Your task to perform on an android device: Go to wifi settings Image 0: 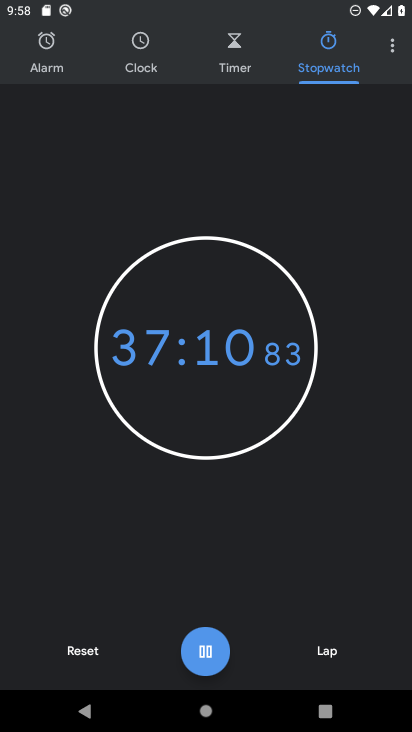
Step 0: click (390, 43)
Your task to perform on an android device: Go to wifi settings Image 1: 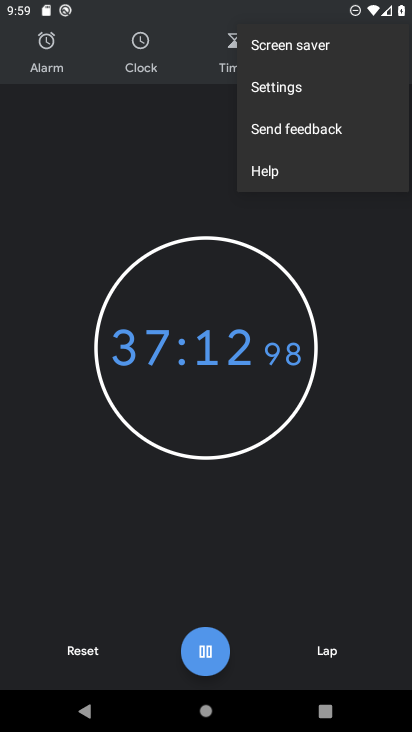
Step 1: click (265, 85)
Your task to perform on an android device: Go to wifi settings Image 2: 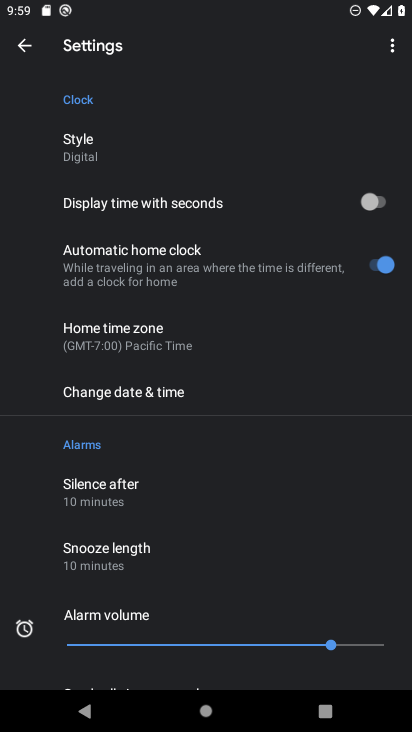
Step 2: drag from (301, 164) to (314, 502)
Your task to perform on an android device: Go to wifi settings Image 3: 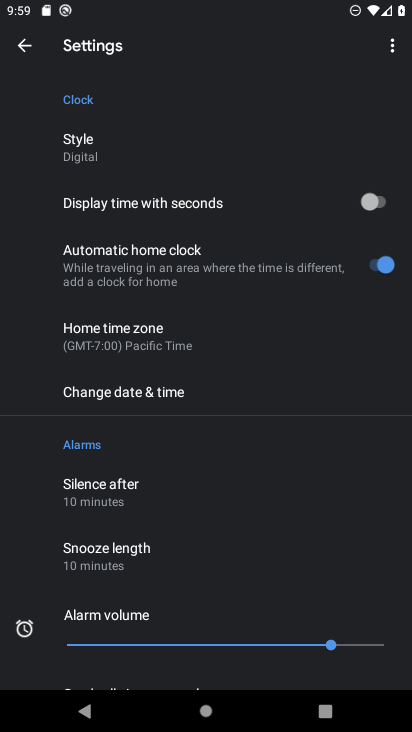
Step 3: press home button
Your task to perform on an android device: Go to wifi settings Image 4: 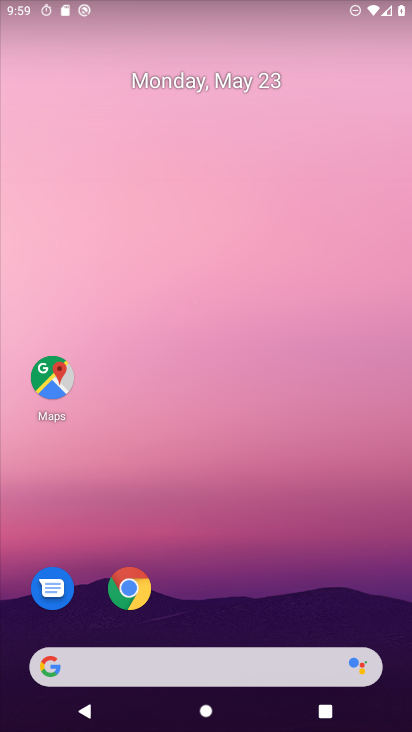
Step 4: drag from (400, 696) to (338, 83)
Your task to perform on an android device: Go to wifi settings Image 5: 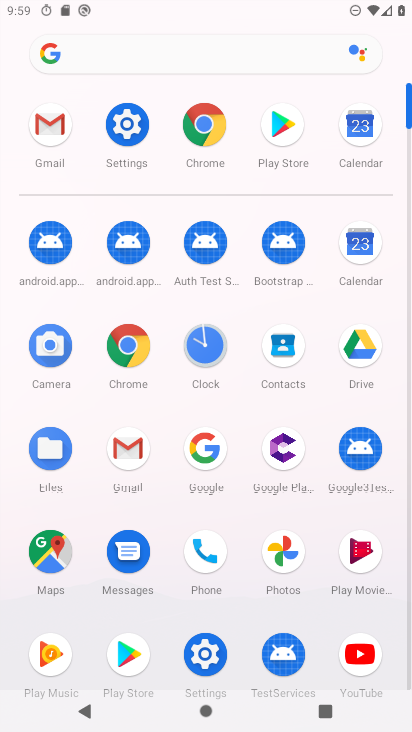
Step 5: click (127, 112)
Your task to perform on an android device: Go to wifi settings Image 6: 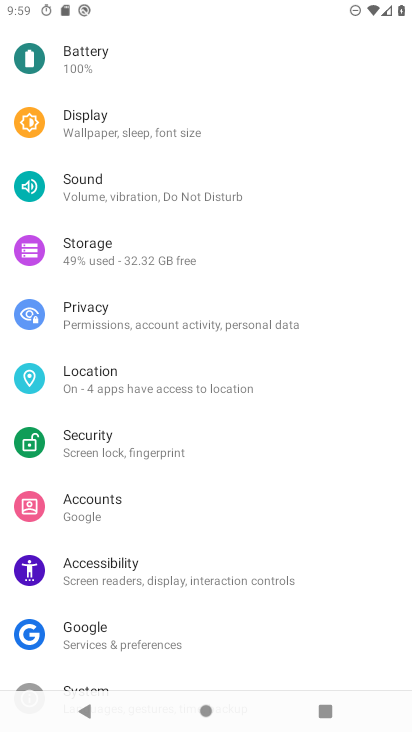
Step 6: drag from (340, 136) to (381, 638)
Your task to perform on an android device: Go to wifi settings Image 7: 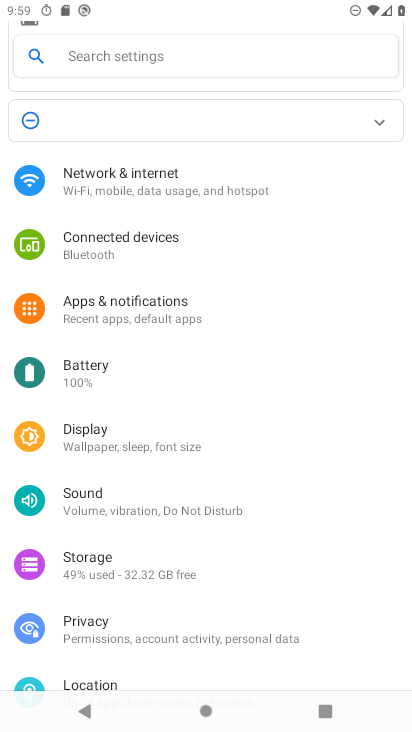
Step 7: click (150, 177)
Your task to perform on an android device: Go to wifi settings Image 8: 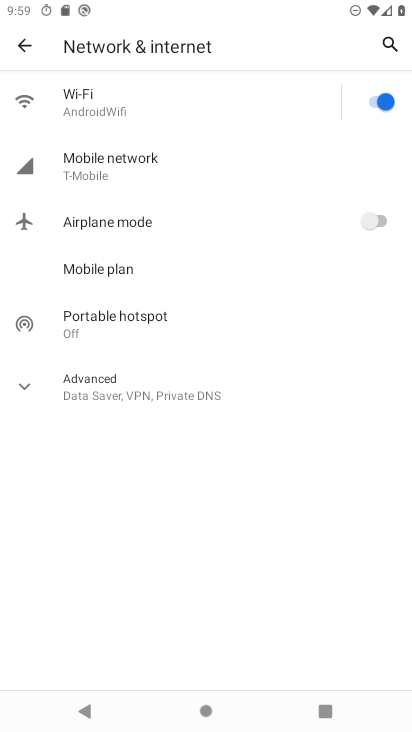
Step 8: click (188, 110)
Your task to perform on an android device: Go to wifi settings Image 9: 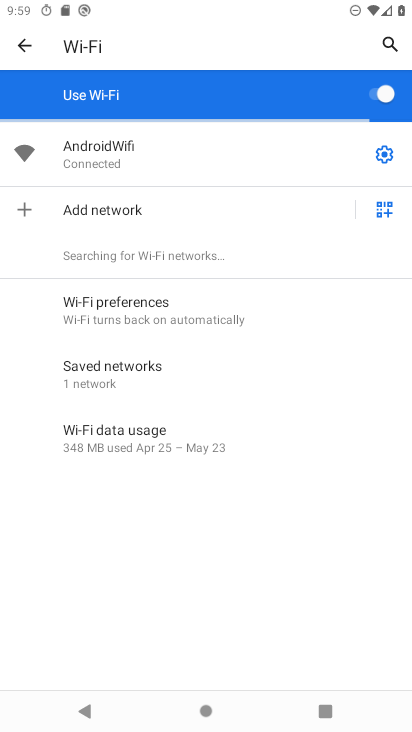
Step 9: click (383, 152)
Your task to perform on an android device: Go to wifi settings Image 10: 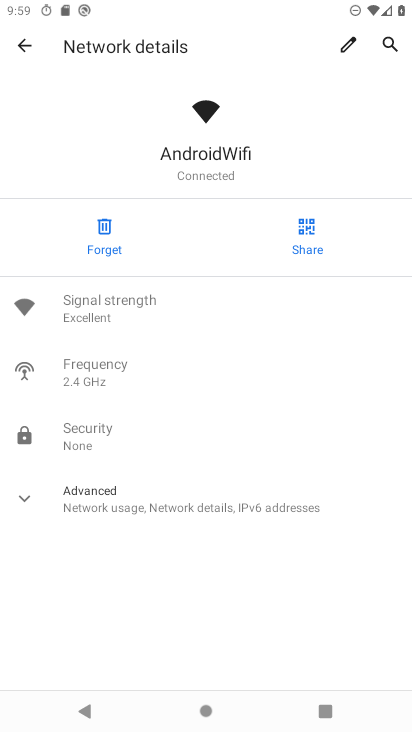
Step 10: task complete